Your task to perform on an android device: open the mobile data screen to see how much data has been used Image 0: 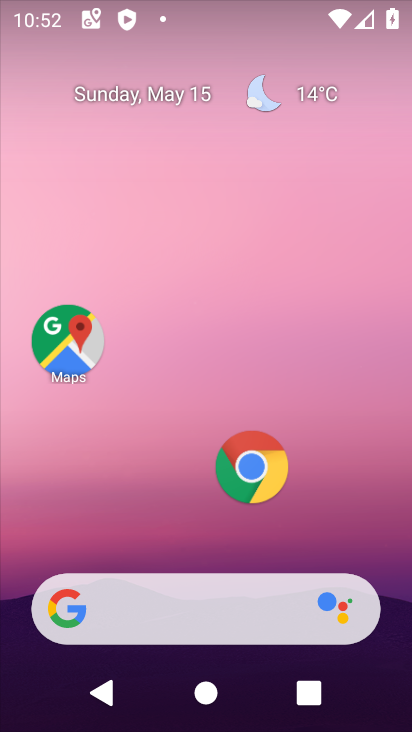
Step 0: drag from (211, 482) to (265, 140)
Your task to perform on an android device: open the mobile data screen to see how much data has been used Image 1: 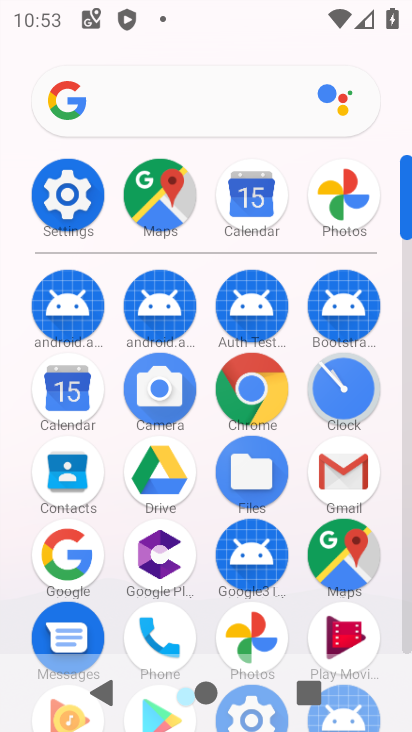
Step 1: click (66, 195)
Your task to perform on an android device: open the mobile data screen to see how much data has been used Image 2: 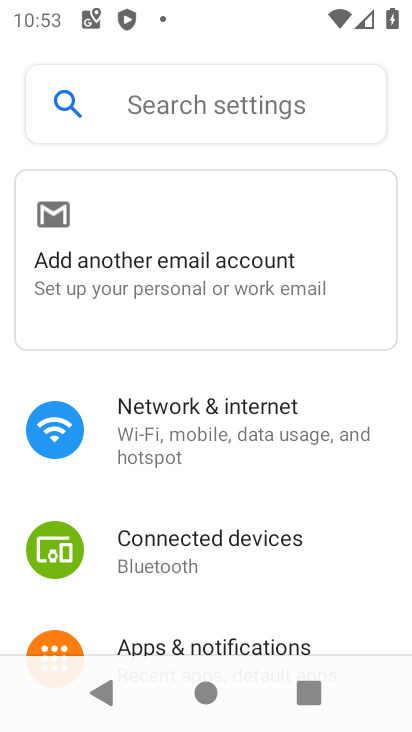
Step 2: click (226, 438)
Your task to perform on an android device: open the mobile data screen to see how much data has been used Image 3: 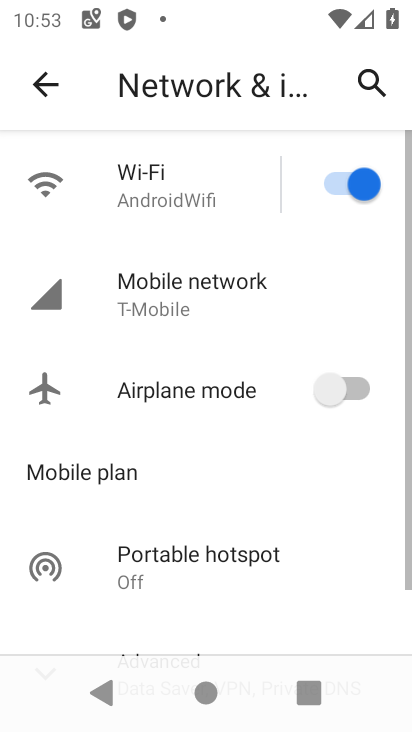
Step 3: click (182, 285)
Your task to perform on an android device: open the mobile data screen to see how much data has been used Image 4: 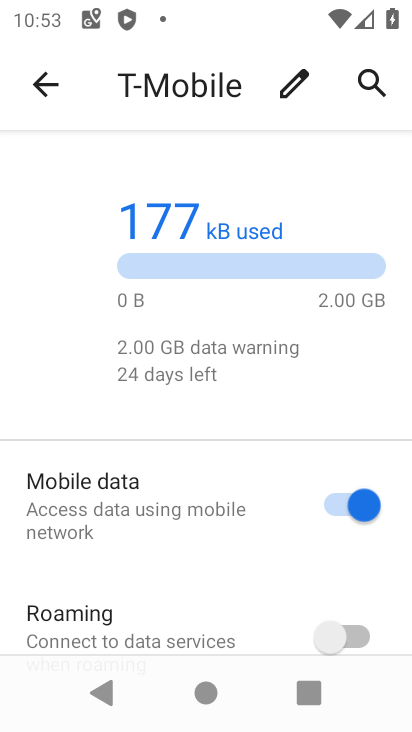
Step 4: task complete